Your task to perform on an android device: Search for usb-c to usb-a on ebay, select the first entry, add it to the cart, then select checkout. Image 0: 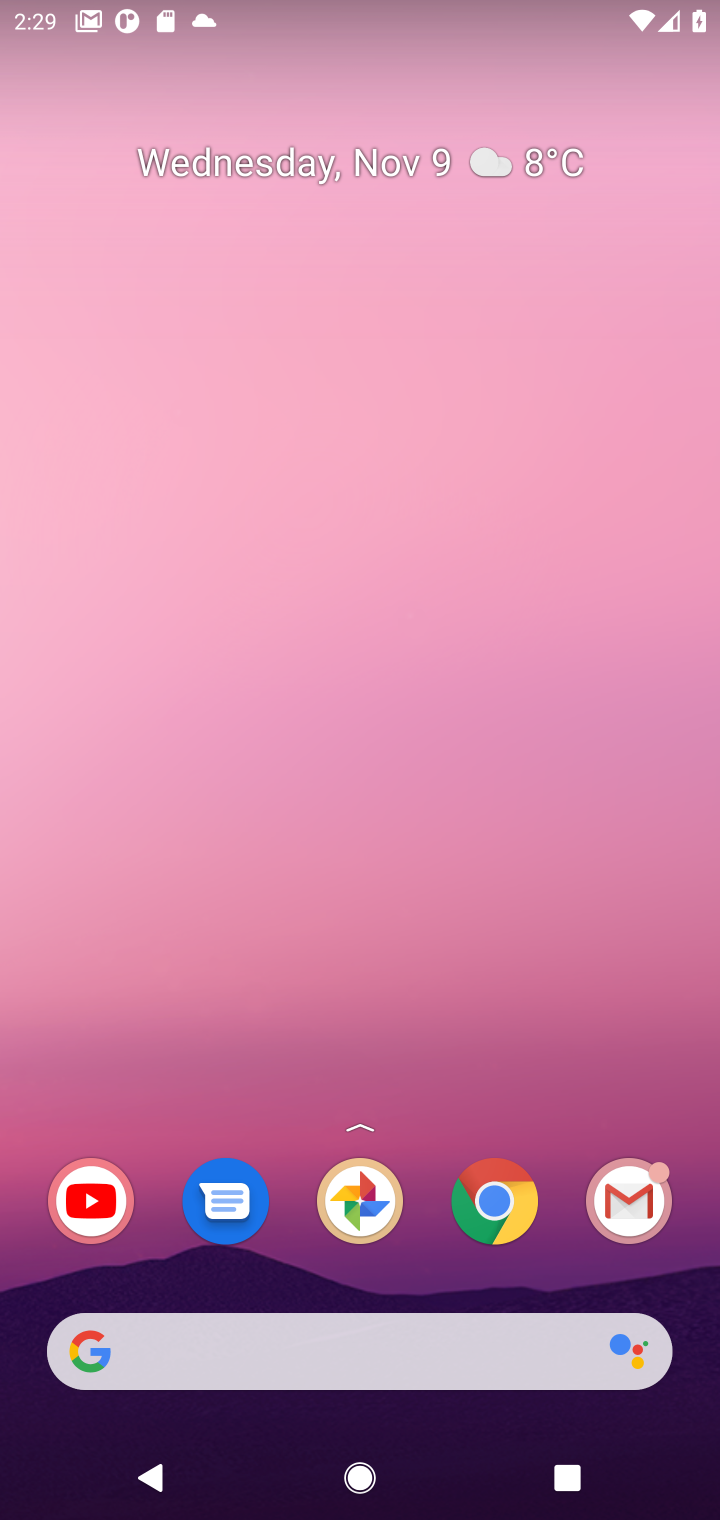
Step 0: click (316, 1345)
Your task to perform on an android device: Search for usb-c to usb-a on ebay, select the first entry, add it to the cart, then select checkout. Image 1: 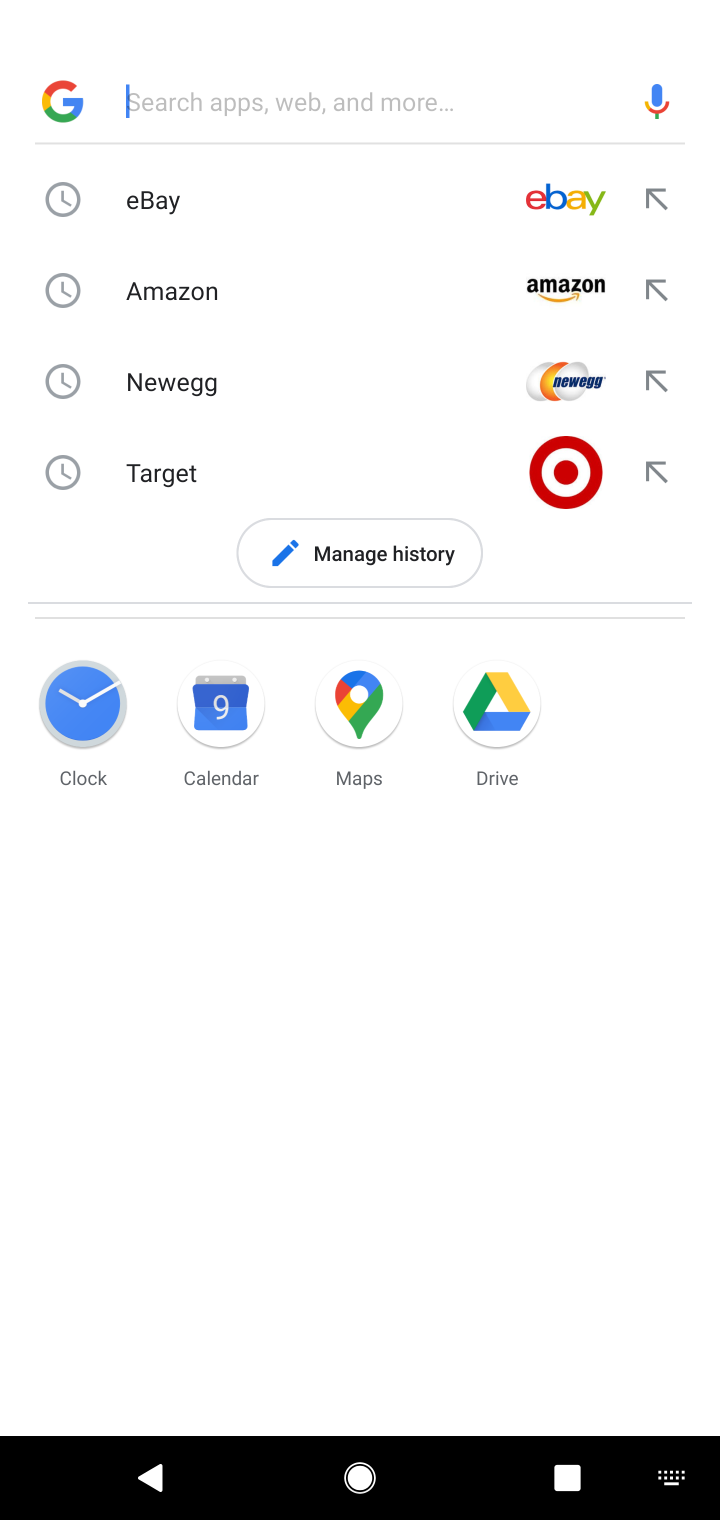
Step 1: click (350, 188)
Your task to perform on an android device: Search for usb-c to usb-a on ebay, select the first entry, add it to the cart, then select checkout. Image 2: 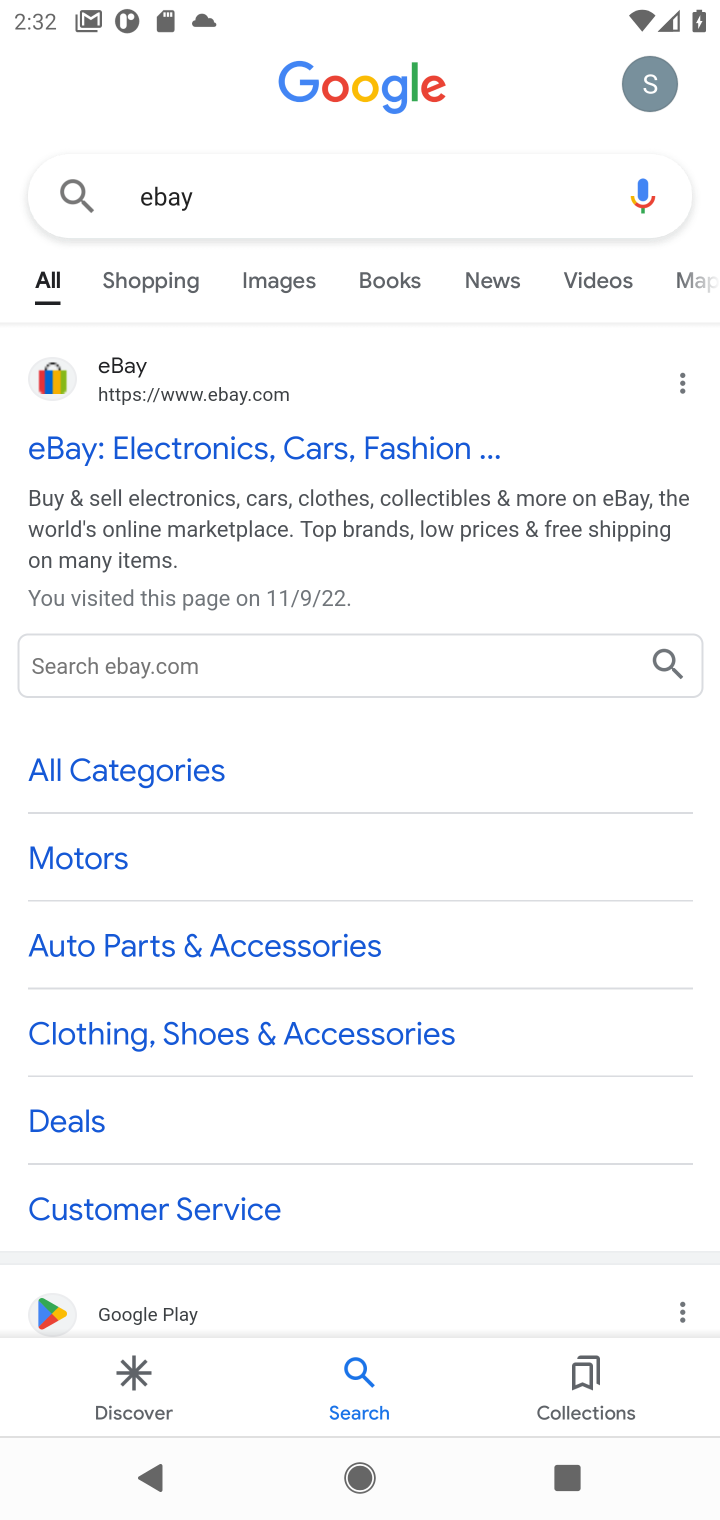
Step 2: click (105, 375)
Your task to perform on an android device: Search for usb-c to usb-a on ebay, select the first entry, add it to the cart, then select checkout. Image 3: 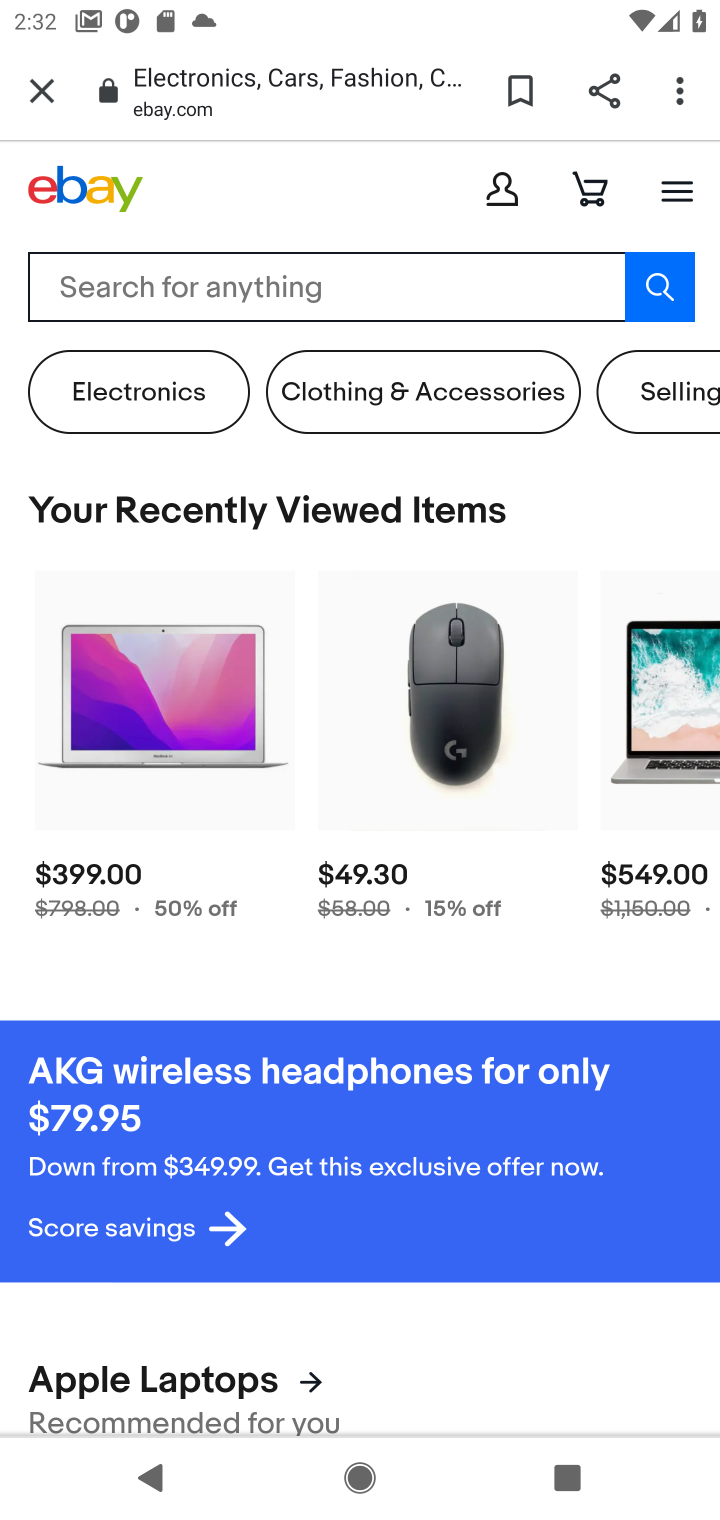
Step 3: click (256, 274)
Your task to perform on an android device: Search for usb-c to usb-a on ebay, select the first entry, add it to the cart, then select checkout. Image 4: 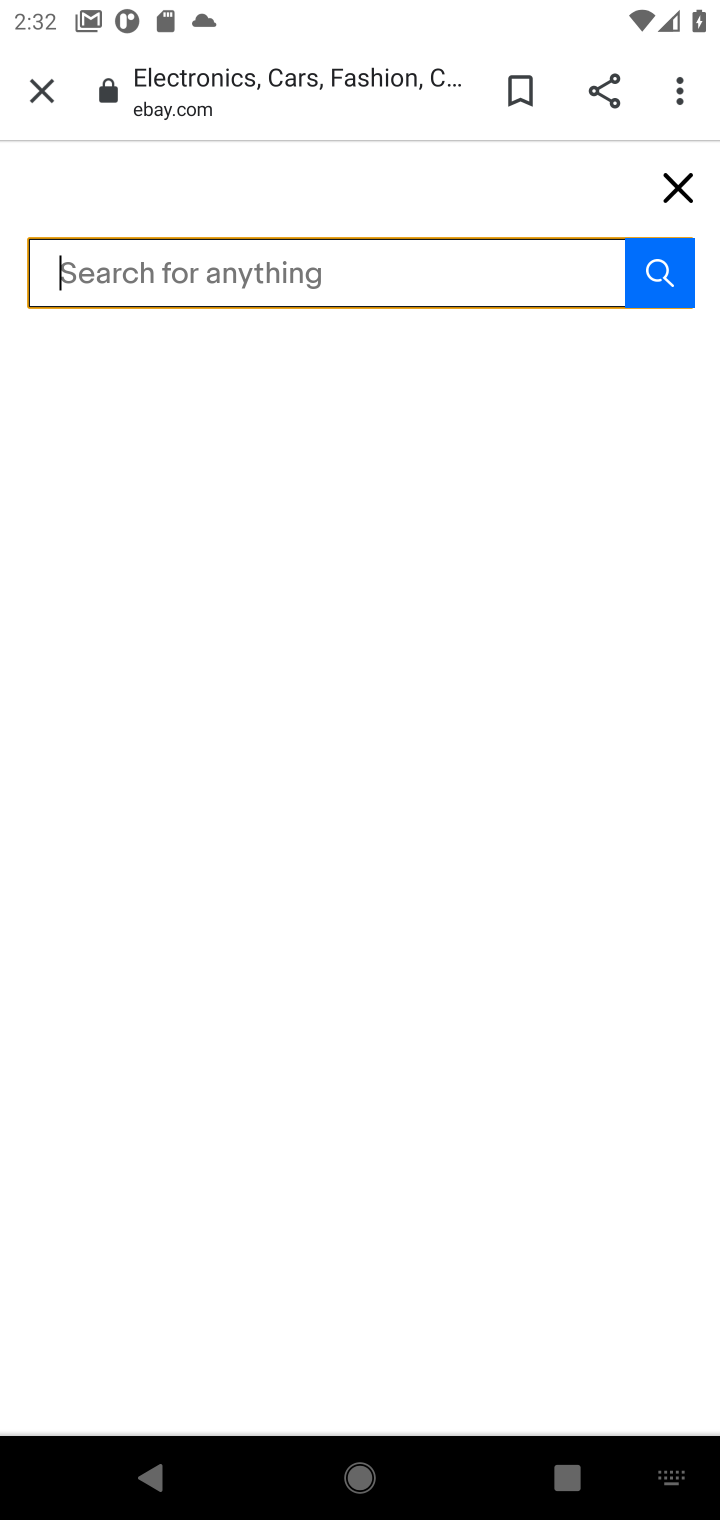
Step 4: type " usb-c to usb-a"
Your task to perform on an android device: Search for usb-c to usb-a on ebay, select the first entry, add it to the cart, then select checkout. Image 5: 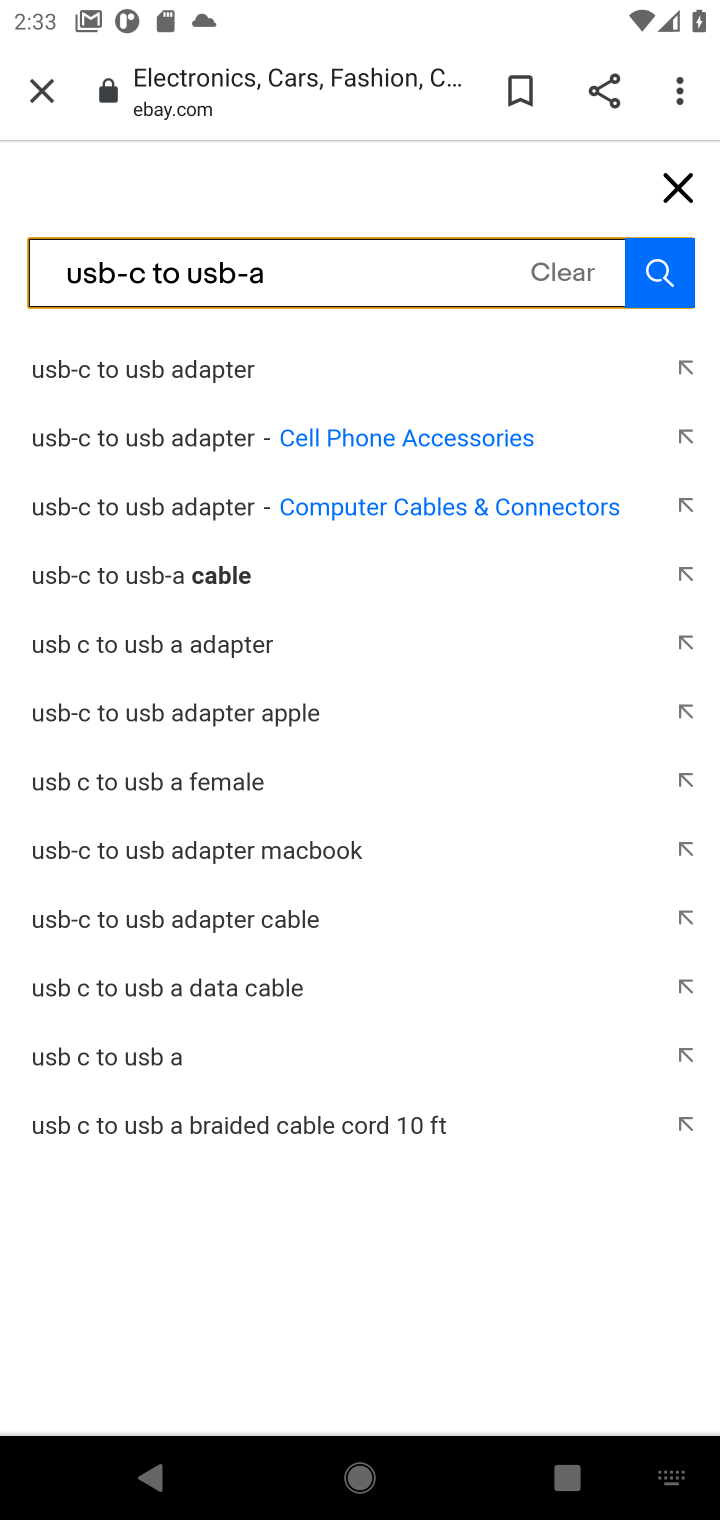
Step 5: click (182, 376)
Your task to perform on an android device: Search for usb-c to usb-a on ebay, select the first entry, add it to the cart, then select checkout. Image 6: 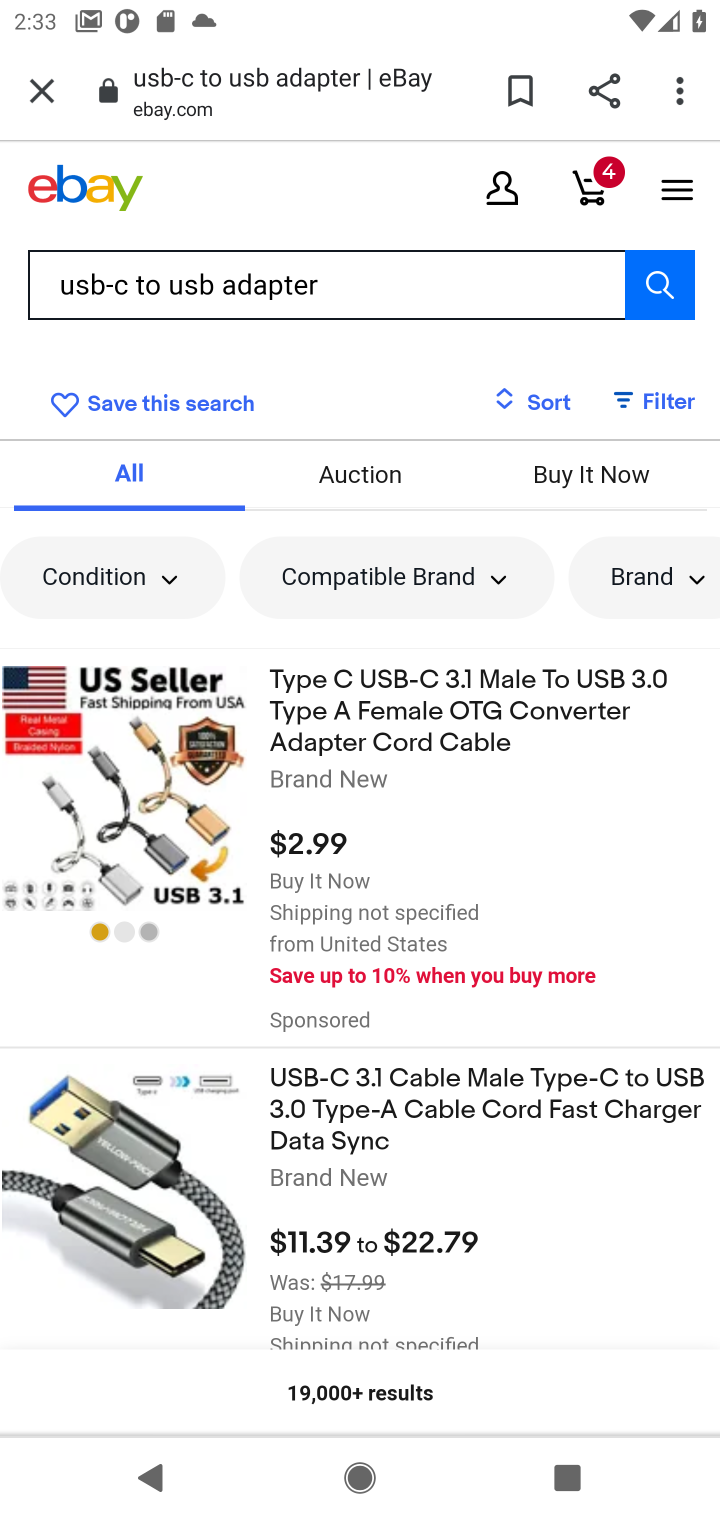
Step 6: click (353, 709)
Your task to perform on an android device: Search for usb-c to usb-a on ebay, select the first entry, add it to the cart, then select checkout. Image 7: 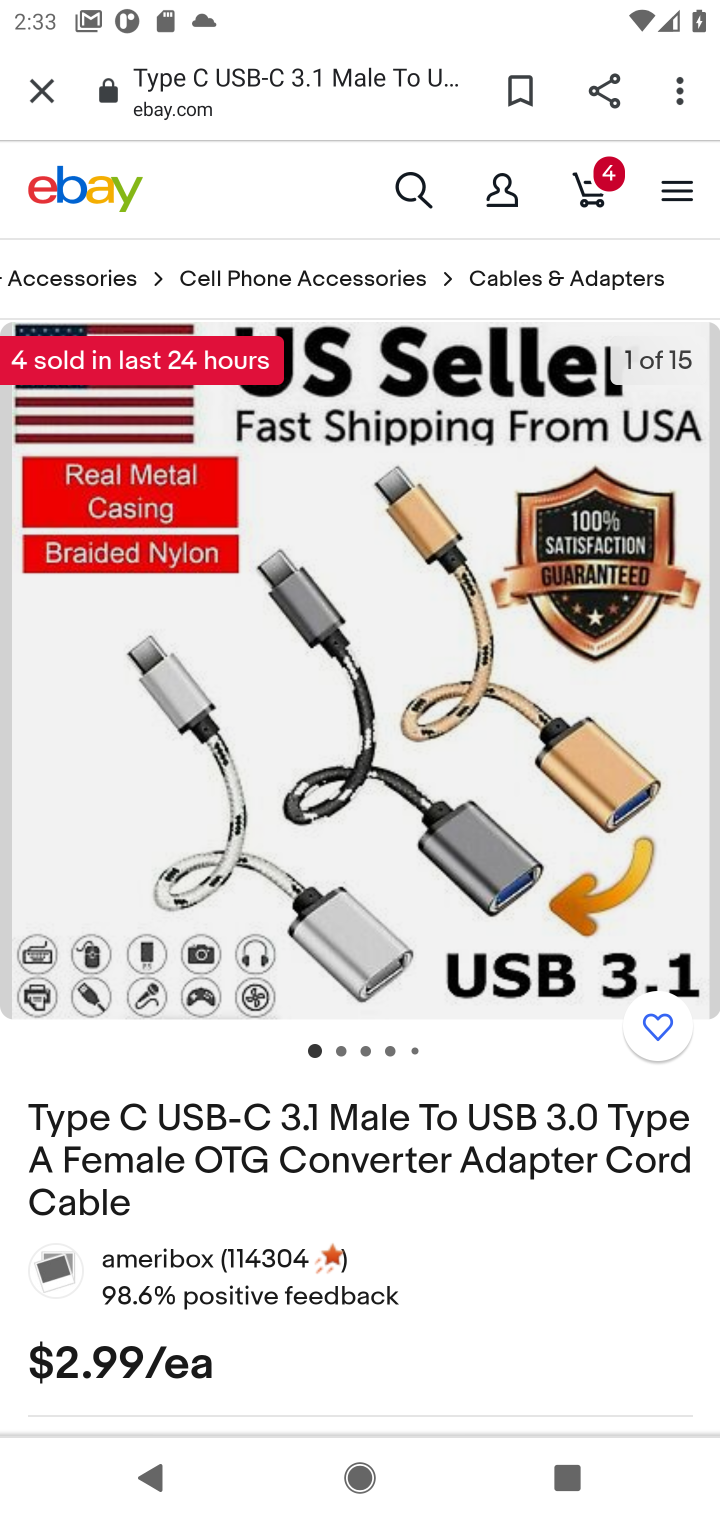
Step 7: drag from (442, 1146) to (492, 521)
Your task to perform on an android device: Search for usb-c to usb-a on ebay, select the first entry, add it to the cart, then select checkout. Image 8: 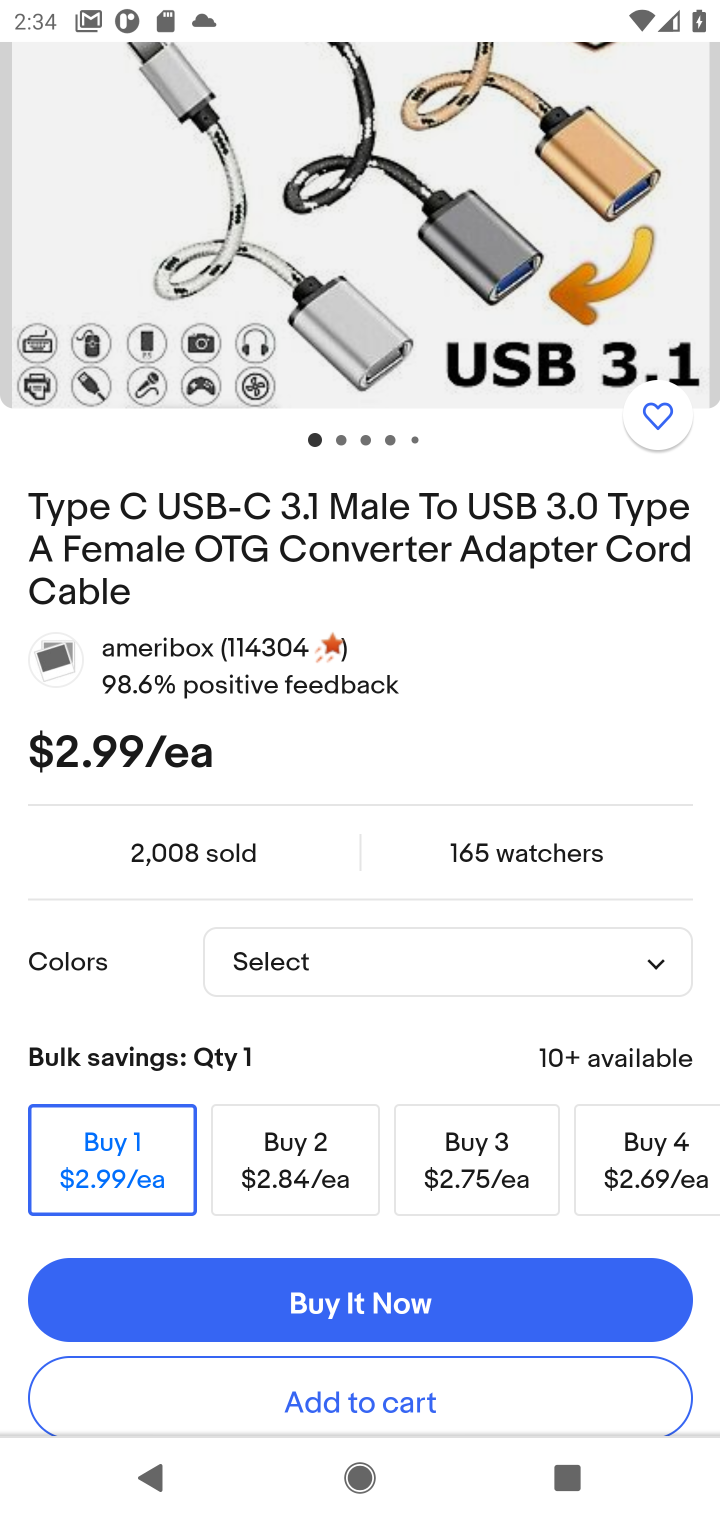
Step 8: drag from (329, 1191) to (336, 817)
Your task to perform on an android device: Search for usb-c to usb-a on ebay, select the first entry, add it to the cart, then select checkout. Image 9: 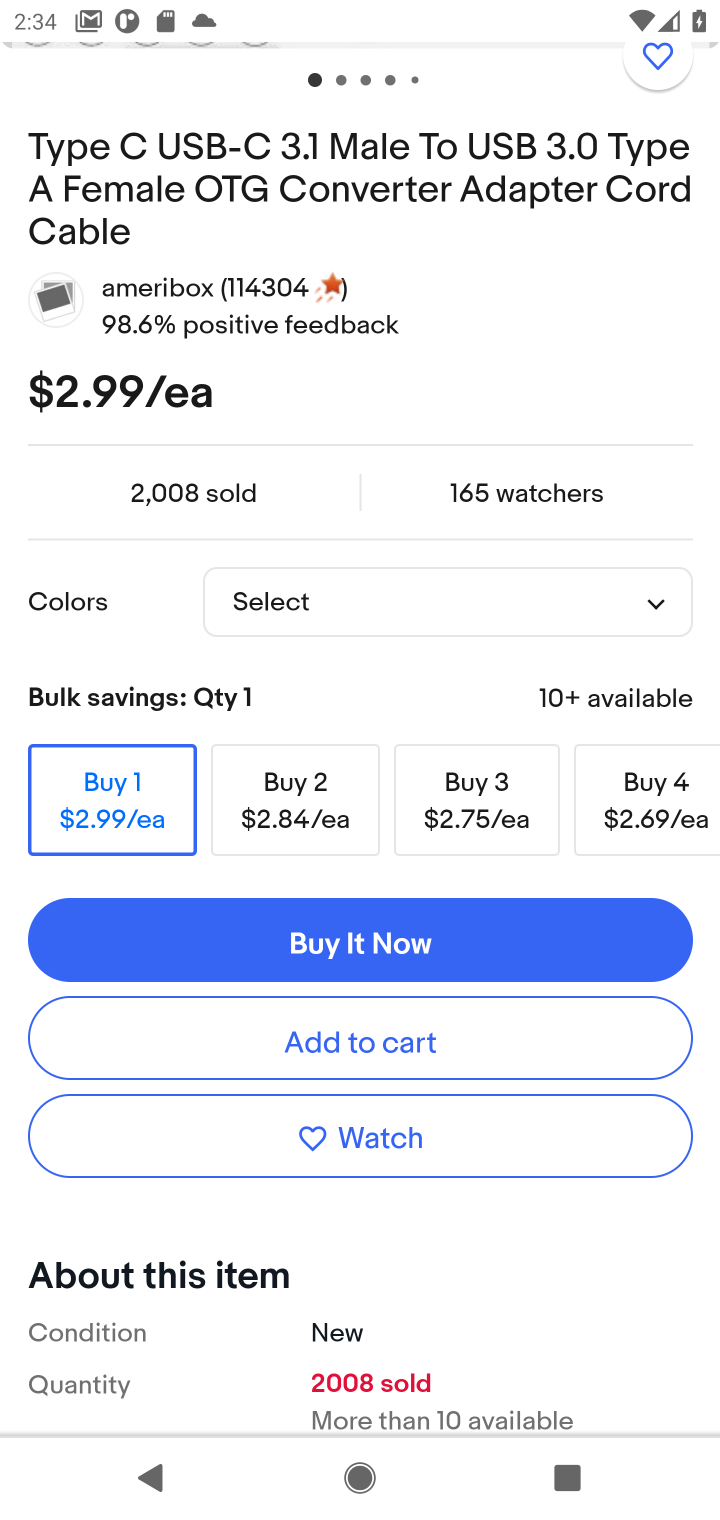
Step 9: click (379, 1065)
Your task to perform on an android device: Search for usb-c to usb-a on ebay, select the first entry, add it to the cart, then select checkout. Image 10: 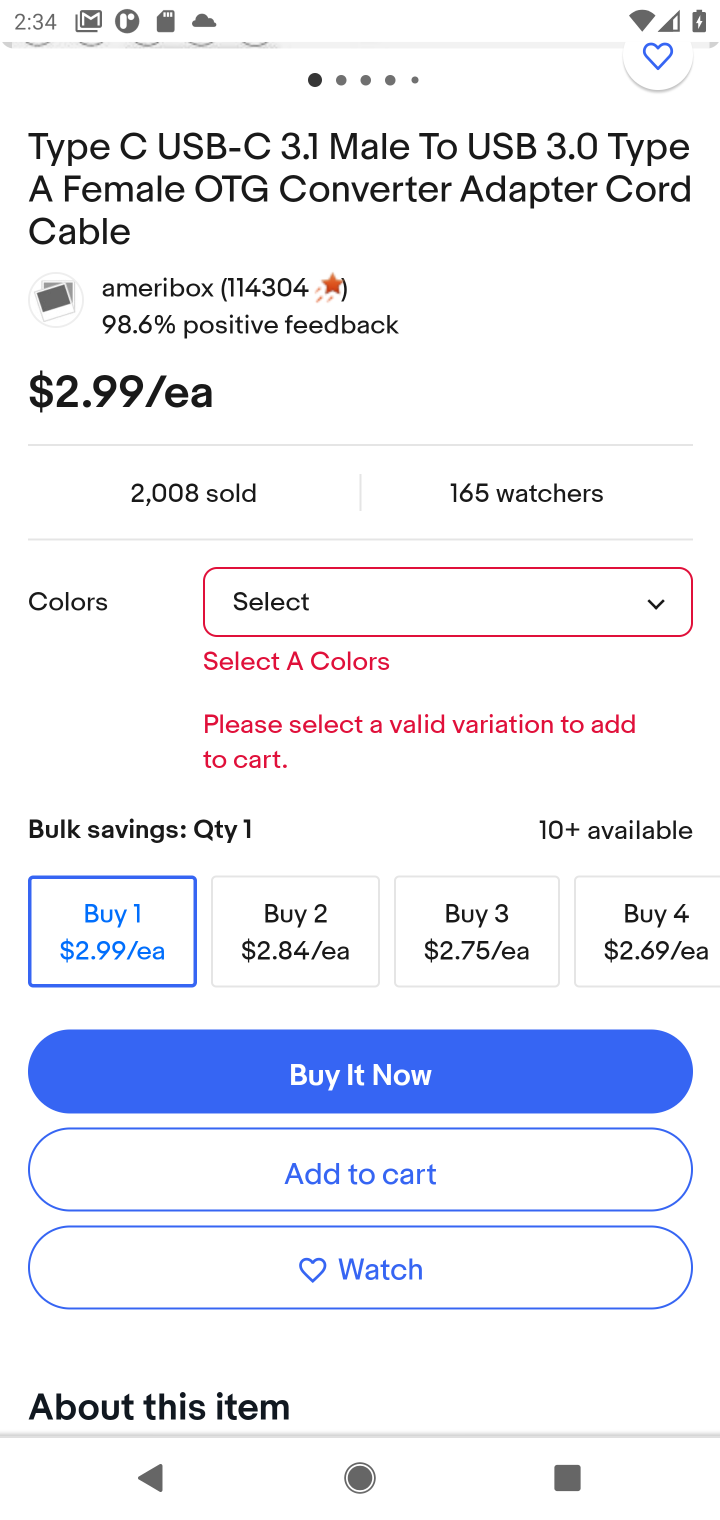
Step 10: click (645, 612)
Your task to perform on an android device: Search for usb-c to usb-a on ebay, select the first entry, add it to the cart, then select checkout. Image 11: 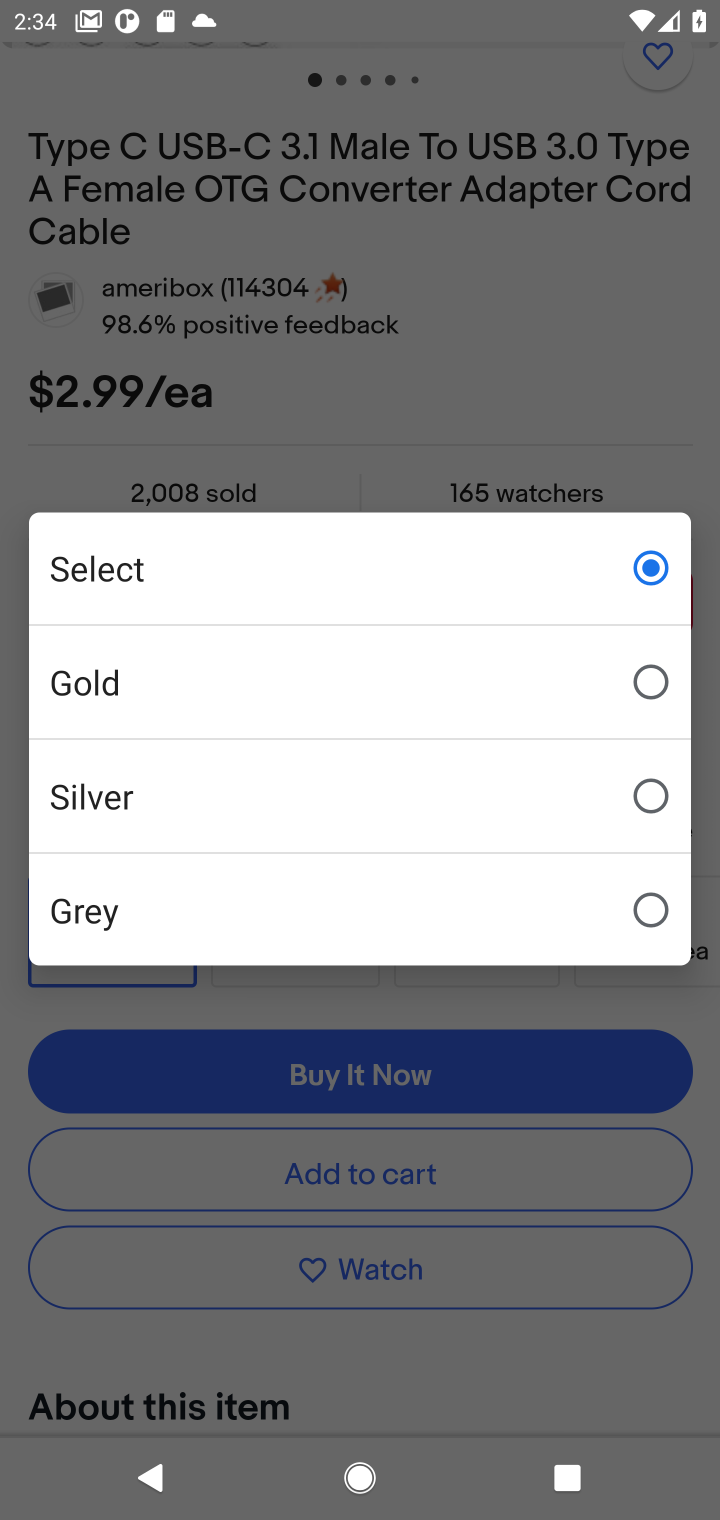
Step 11: click (374, 648)
Your task to perform on an android device: Search for usb-c to usb-a on ebay, select the first entry, add it to the cart, then select checkout. Image 12: 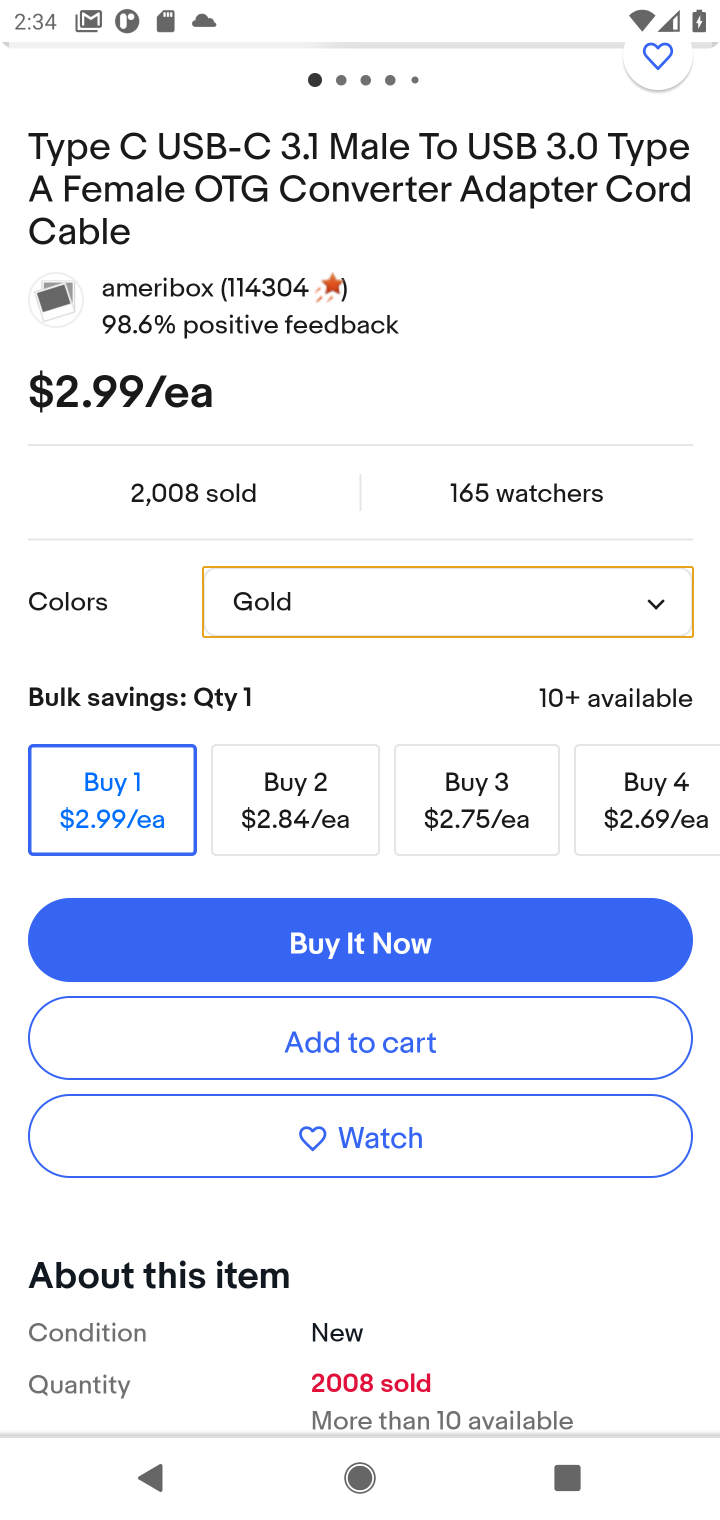
Step 12: click (322, 1042)
Your task to perform on an android device: Search for usb-c to usb-a on ebay, select the first entry, add it to the cart, then select checkout. Image 13: 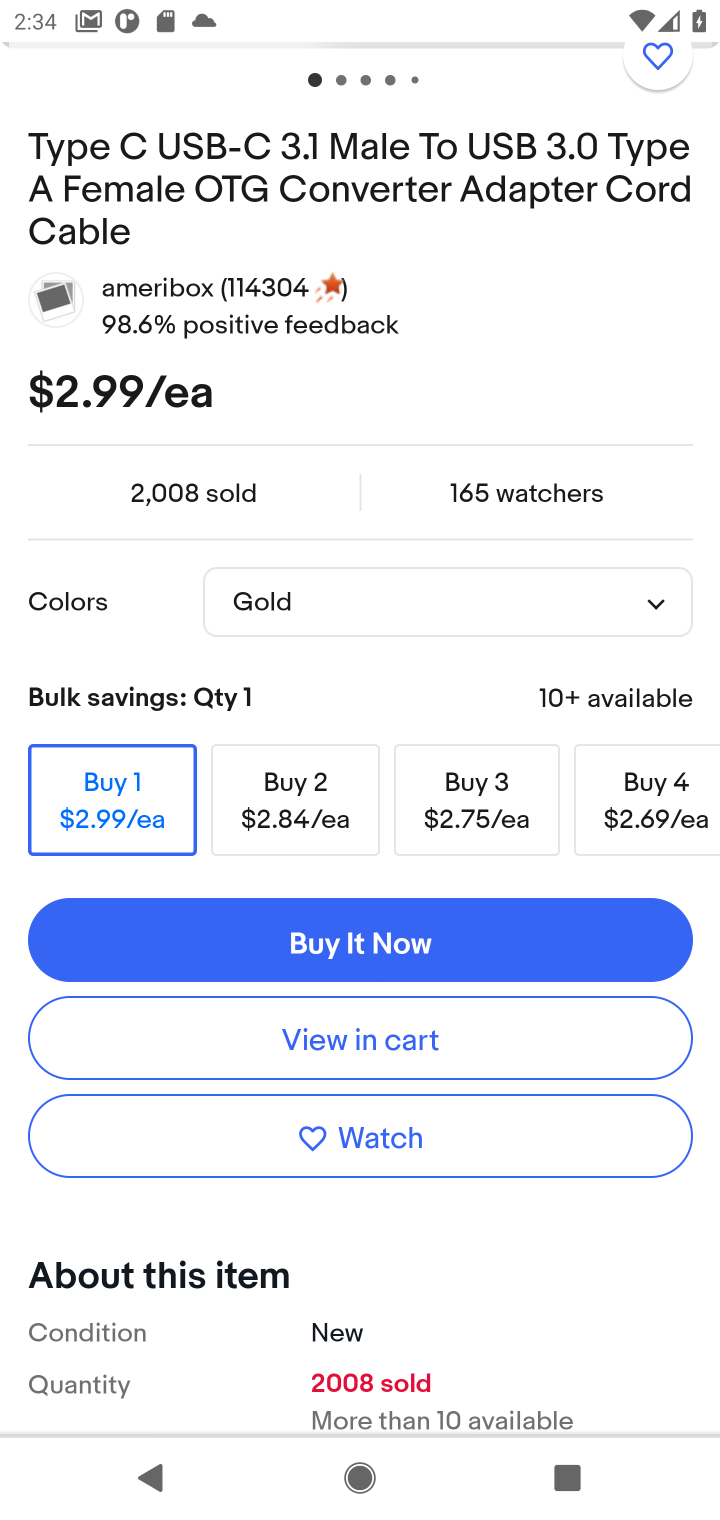
Step 13: task complete